Your task to perform on an android device: When is my next meeting? Image 0: 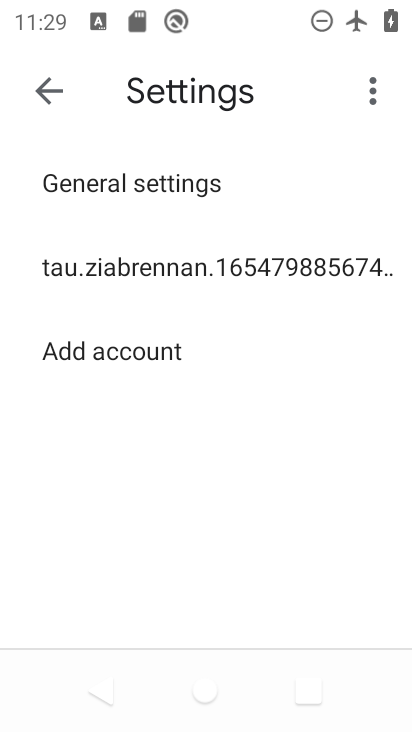
Step 0: press home button
Your task to perform on an android device: When is my next meeting? Image 1: 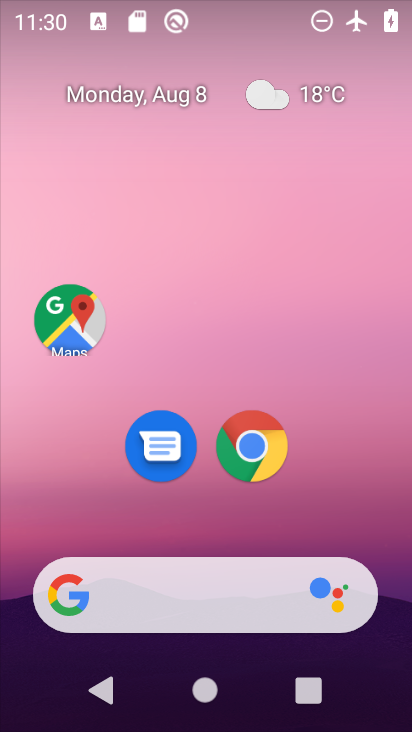
Step 1: drag from (394, 626) to (356, 104)
Your task to perform on an android device: When is my next meeting? Image 2: 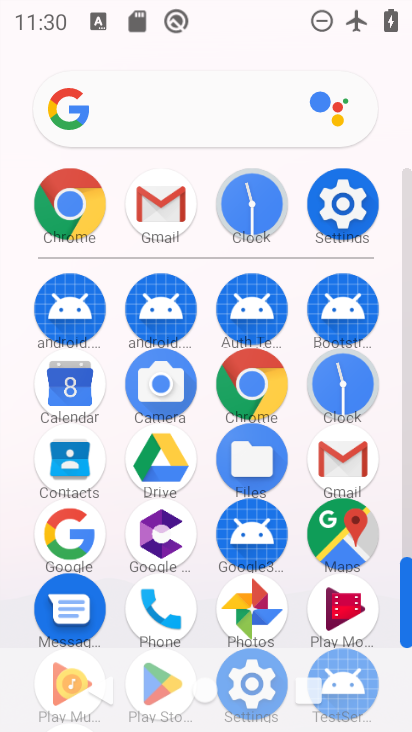
Step 2: click (65, 385)
Your task to perform on an android device: When is my next meeting? Image 3: 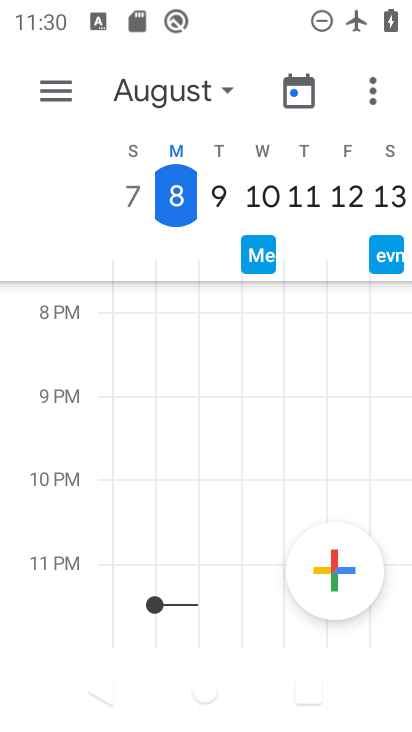
Step 3: click (54, 83)
Your task to perform on an android device: When is my next meeting? Image 4: 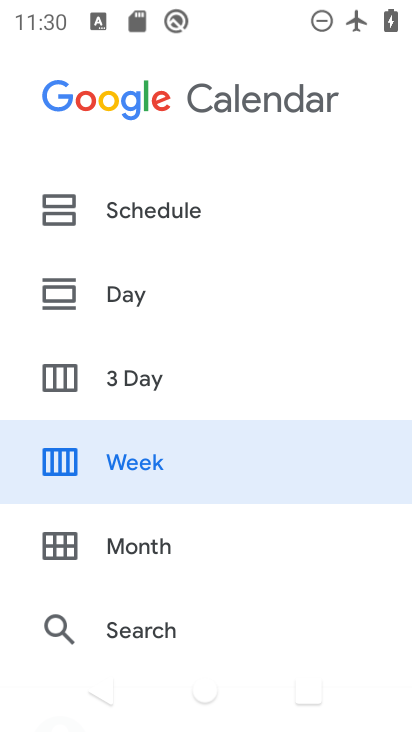
Step 4: click (147, 207)
Your task to perform on an android device: When is my next meeting? Image 5: 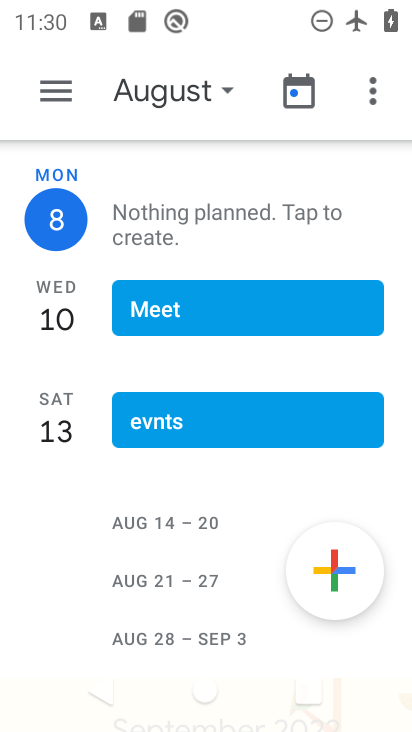
Step 5: task complete